Your task to perform on an android device: change alarm snooze length Image 0: 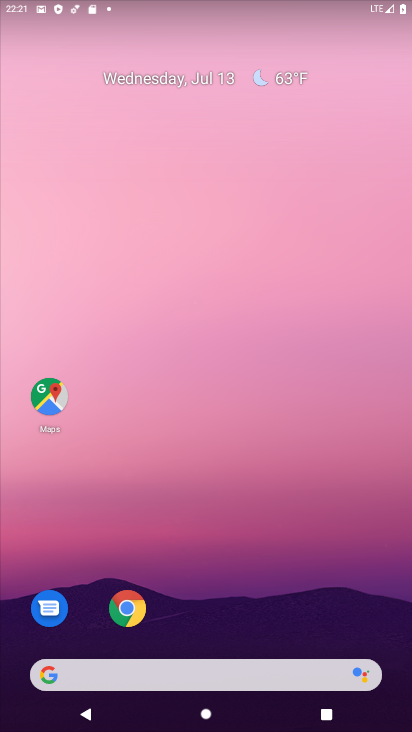
Step 0: drag from (222, 624) to (251, 94)
Your task to perform on an android device: change alarm snooze length Image 1: 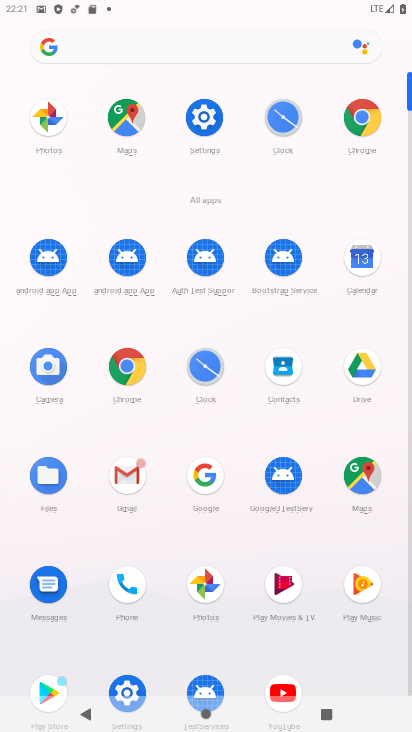
Step 1: click (206, 371)
Your task to perform on an android device: change alarm snooze length Image 2: 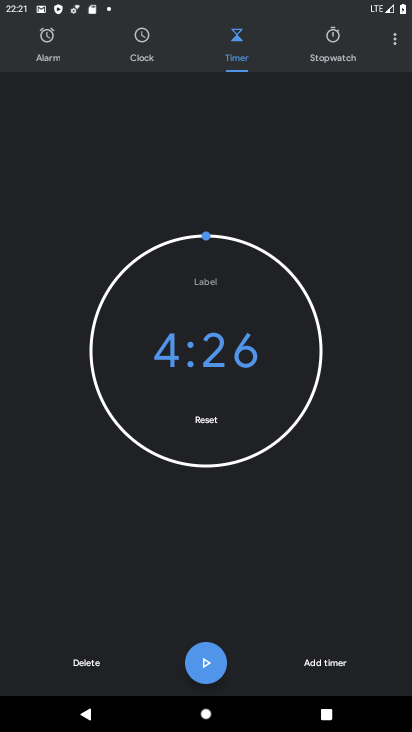
Step 2: click (383, 32)
Your task to perform on an android device: change alarm snooze length Image 3: 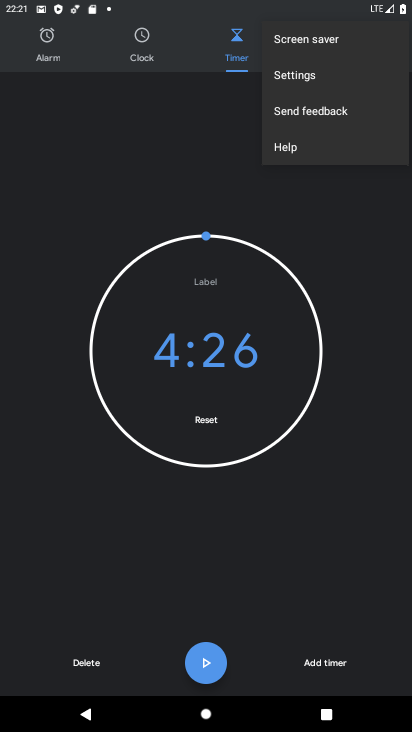
Step 3: click (293, 79)
Your task to perform on an android device: change alarm snooze length Image 4: 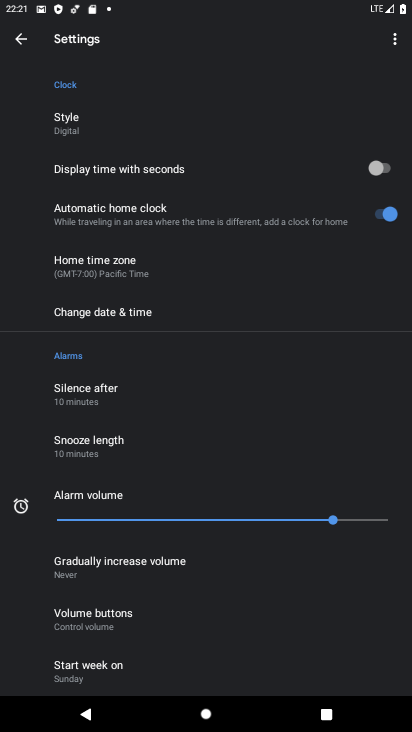
Step 4: click (113, 443)
Your task to perform on an android device: change alarm snooze length Image 5: 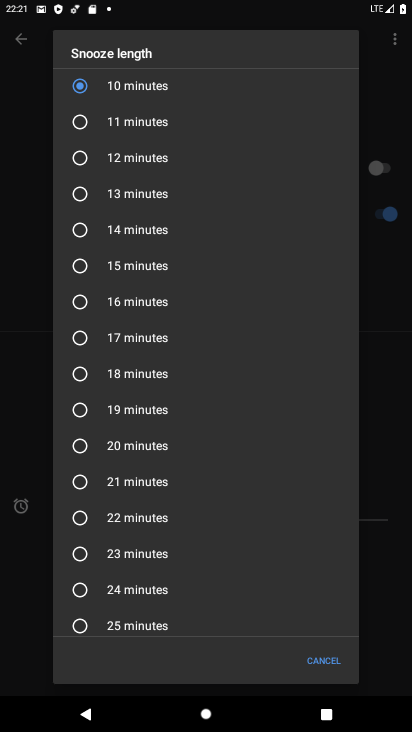
Step 5: click (112, 272)
Your task to perform on an android device: change alarm snooze length Image 6: 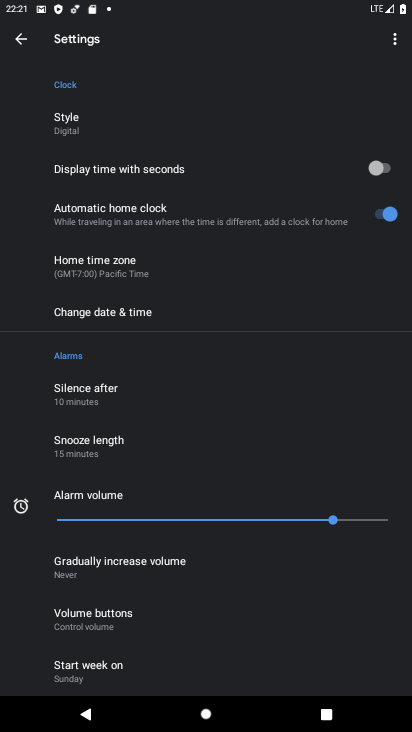
Step 6: task complete